Your task to perform on an android device: Go to sound settings Image 0: 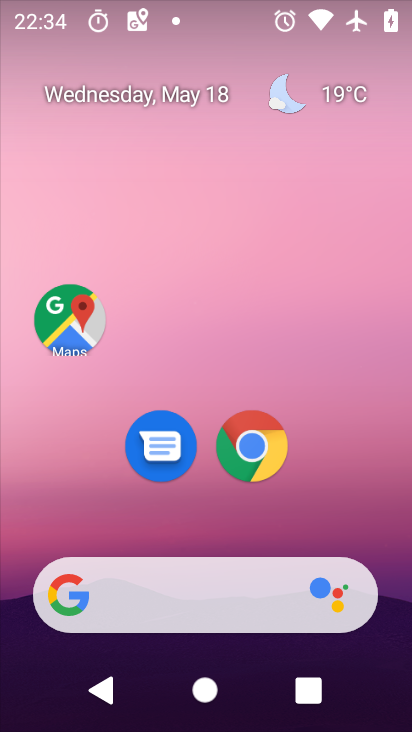
Step 0: press home button
Your task to perform on an android device: Go to sound settings Image 1: 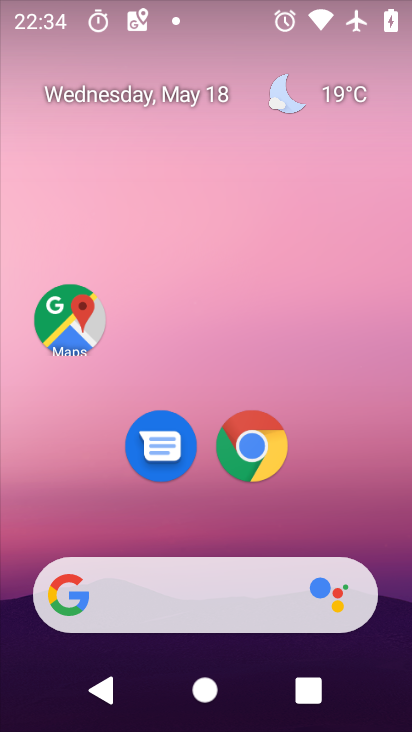
Step 1: drag from (201, 599) to (386, 29)
Your task to perform on an android device: Go to sound settings Image 2: 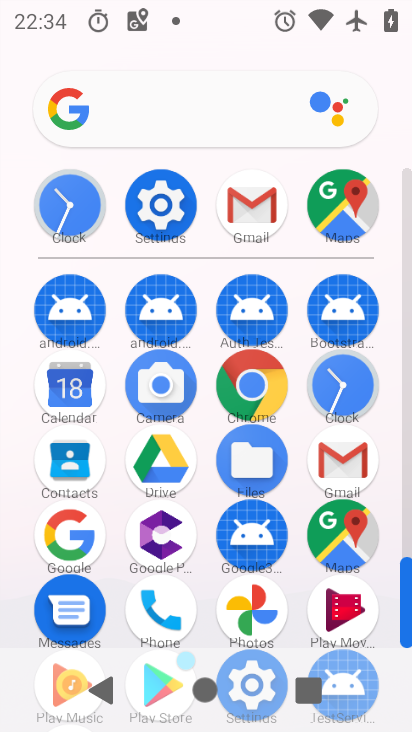
Step 2: drag from (197, 618) to (364, 220)
Your task to perform on an android device: Go to sound settings Image 3: 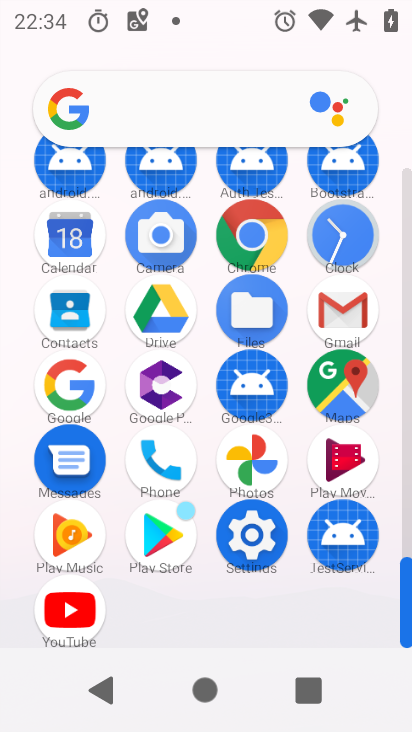
Step 3: click (257, 539)
Your task to perform on an android device: Go to sound settings Image 4: 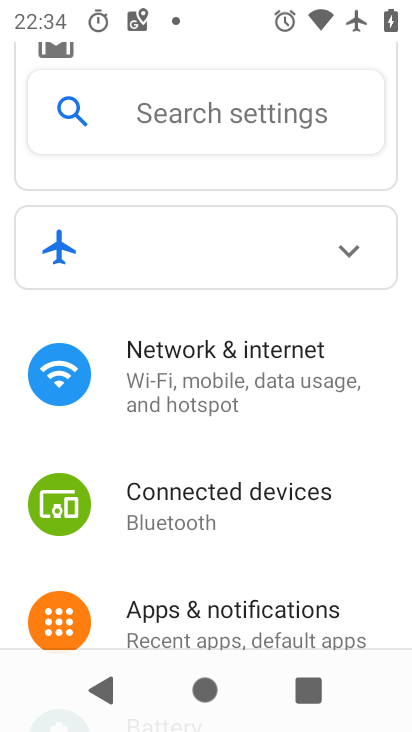
Step 4: drag from (214, 588) to (358, 40)
Your task to perform on an android device: Go to sound settings Image 5: 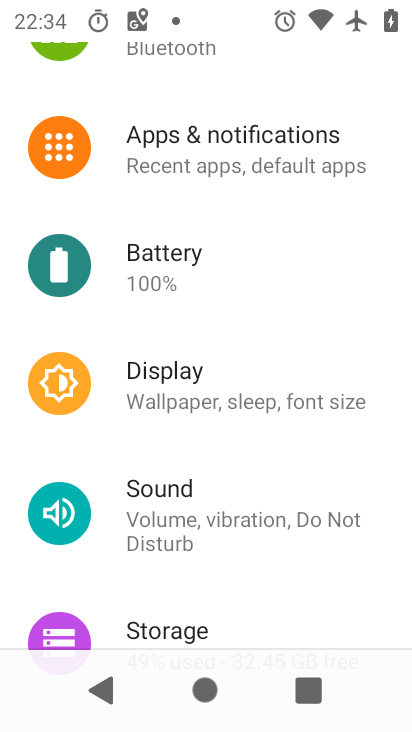
Step 5: click (211, 499)
Your task to perform on an android device: Go to sound settings Image 6: 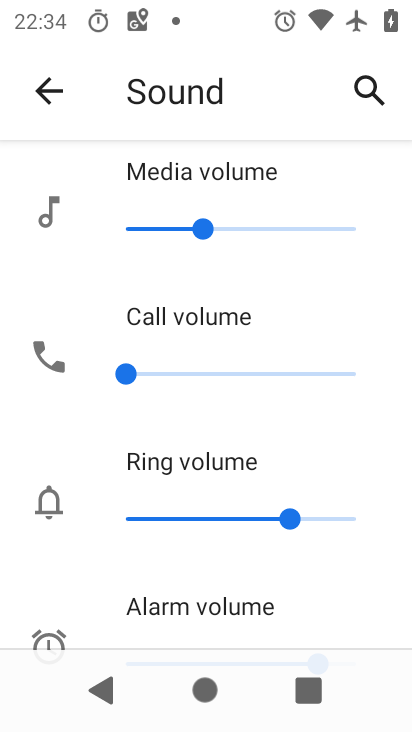
Step 6: task complete